Your task to perform on an android device: read, delete, or share a saved page in the chrome app Image 0: 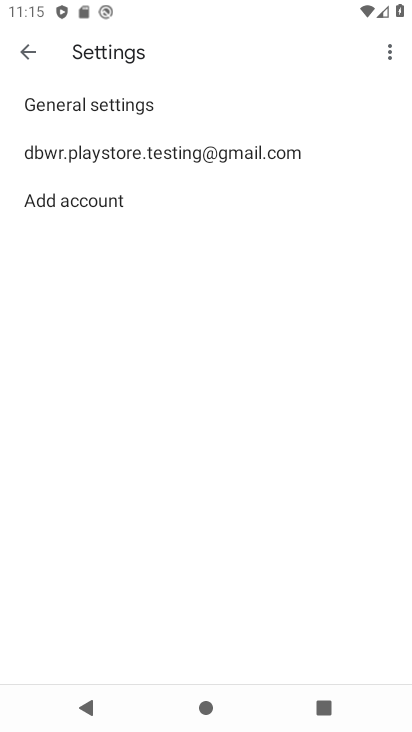
Step 0: drag from (329, 568) to (329, 320)
Your task to perform on an android device: read, delete, or share a saved page in the chrome app Image 1: 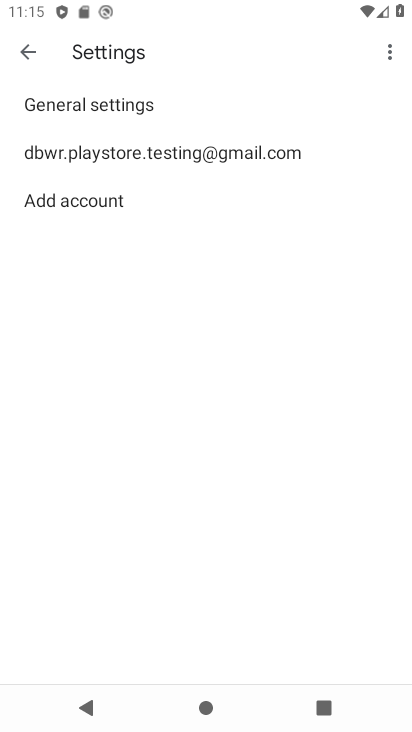
Step 1: press home button
Your task to perform on an android device: read, delete, or share a saved page in the chrome app Image 2: 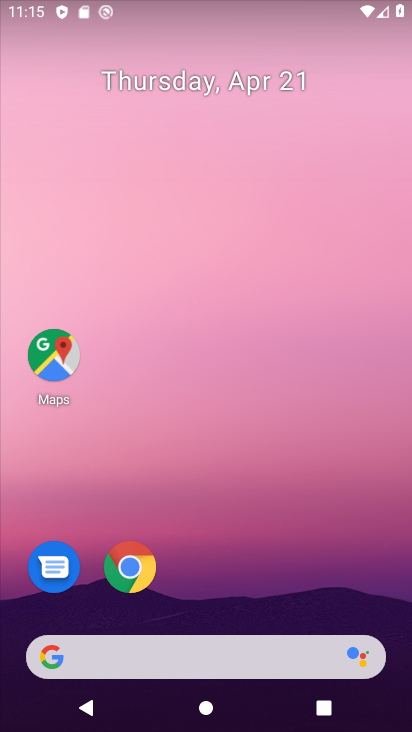
Step 2: drag from (331, 569) to (320, 199)
Your task to perform on an android device: read, delete, or share a saved page in the chrome app Image 3: 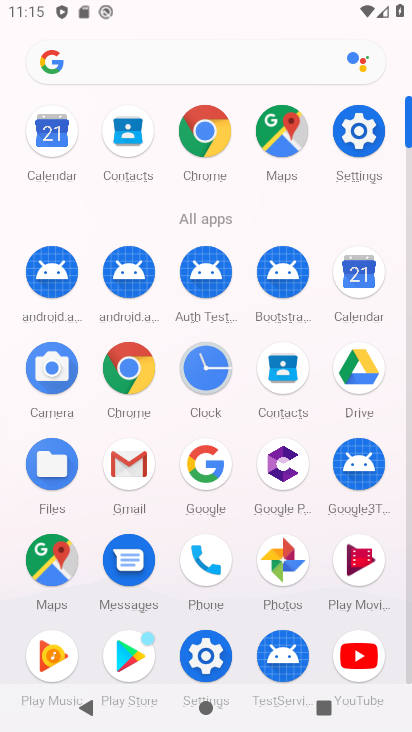
Step 3: click (140, 389)
Your task to perform on an android device: read, delete, or share a saved page in the chrome app Image 4: 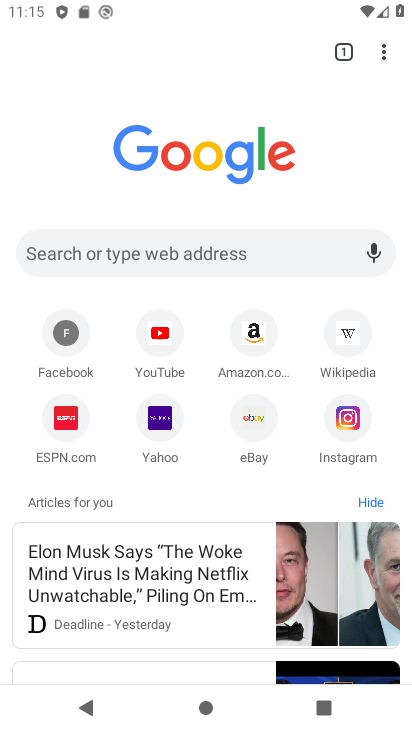
Step 4: task complete